Your task to perform on an android device: Open Yahoo.com Image 0: 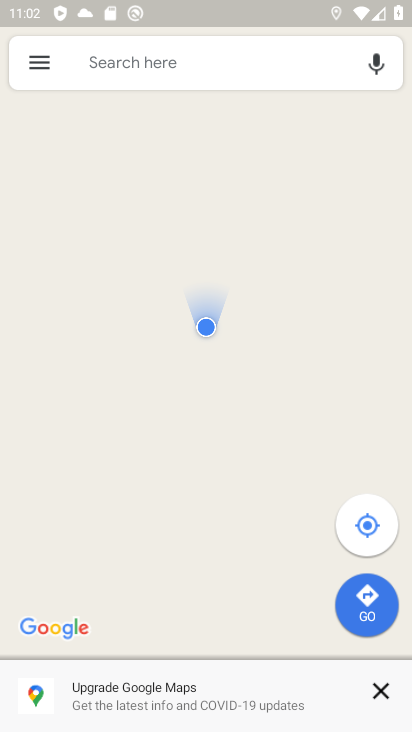
Step 0: press home button
Your task to perform on an android device: Open Yahoo.com Image 1: 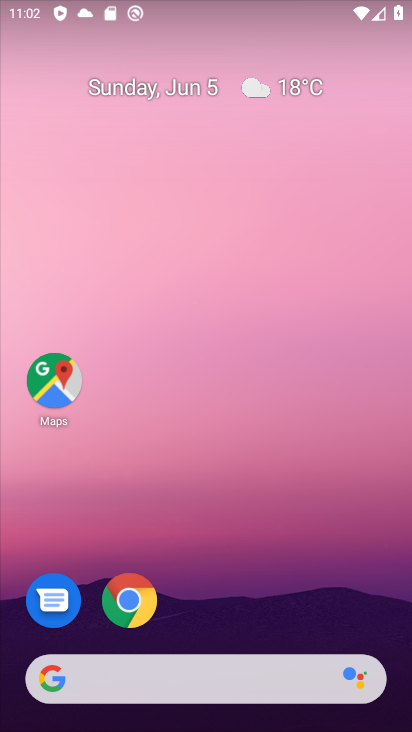
Step 1: click (123, 610)
Your task to perform on an android device: Open Yahoo.com Image 2: 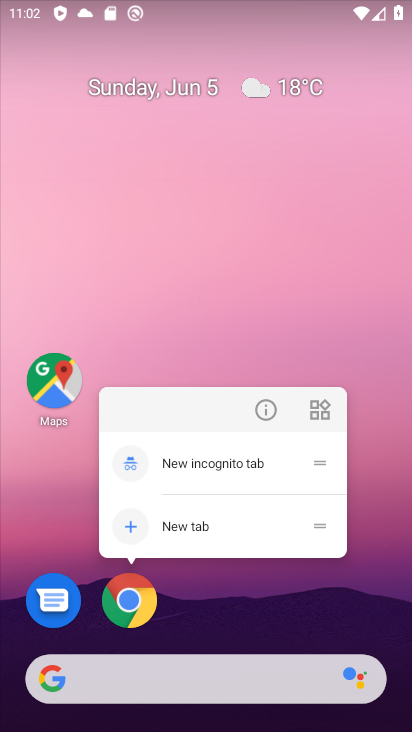
Step 2: click (124, 609)
Your task to perform on an android device: Open Yahoo.com Image 3: 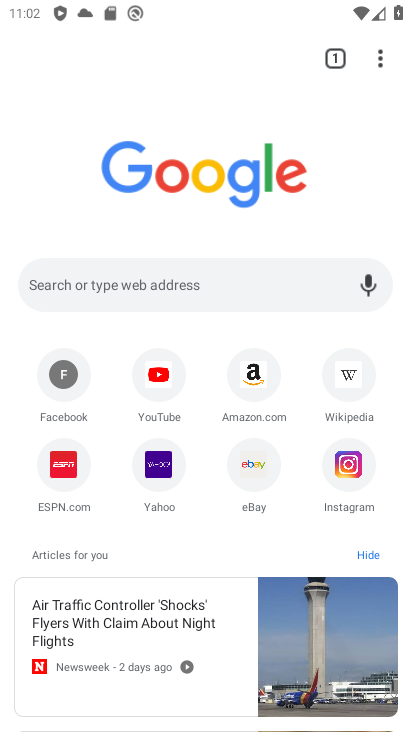
Step 3: click (165, 479)
Your task to perform on an android device: Open Yahoo.com Image 4: 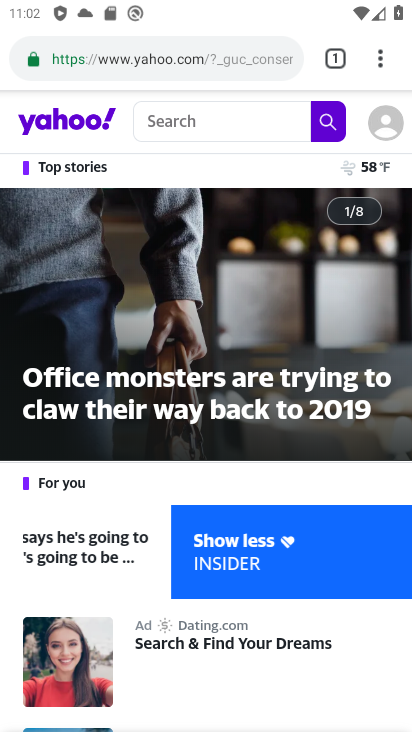
Step 4: task complete